Your task to perform on an android device: see sites visited before in the chrome app Image 0: 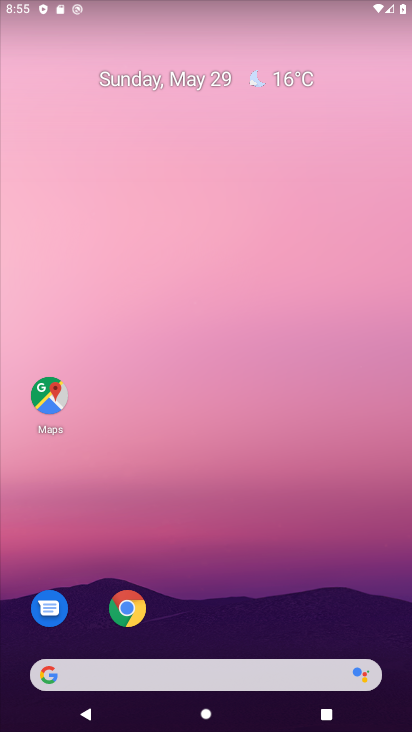
Step 0: click (122, 618)
Your task to perform on an android device: see sites visited before in the chrome app Image 1: 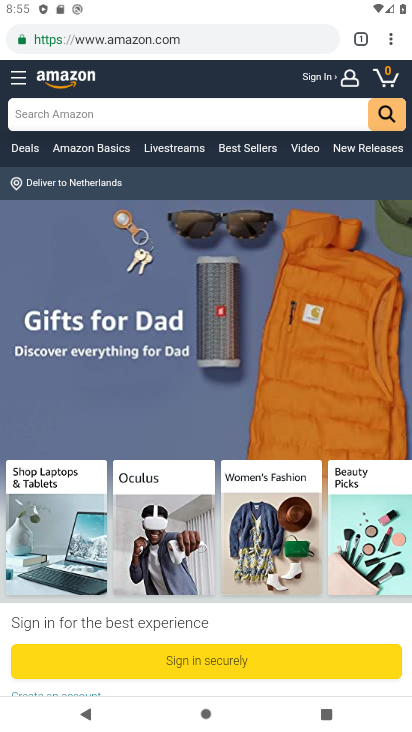
Step 1: click (390, 51)
Your task to perform on an android device: see sites visited before in the chrome app Image 2: 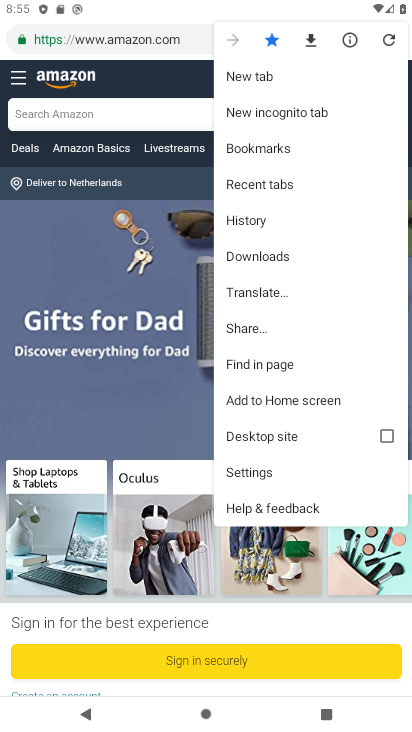
Step 2: click (245, 222)
Your task to perform on an android device: see sites visited before in the chrome app Image 3: 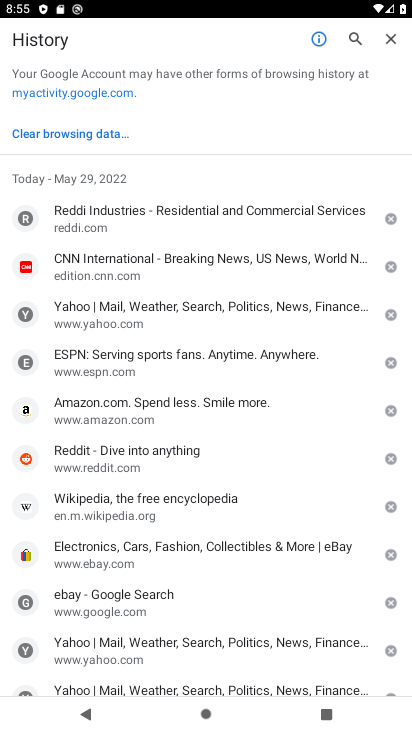
Step 3: task complete